Your task to perform on an android device: set an alarm Image 0: 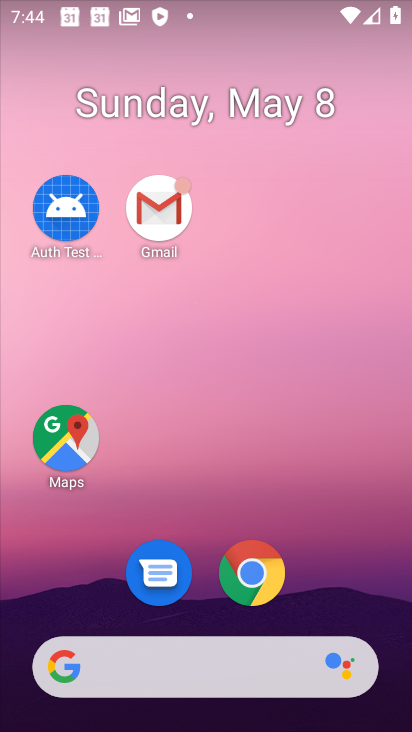
Step 0: drag from (345, 578) to (408, 165)
Your task to perform on an android device: set an alarm Image 1: 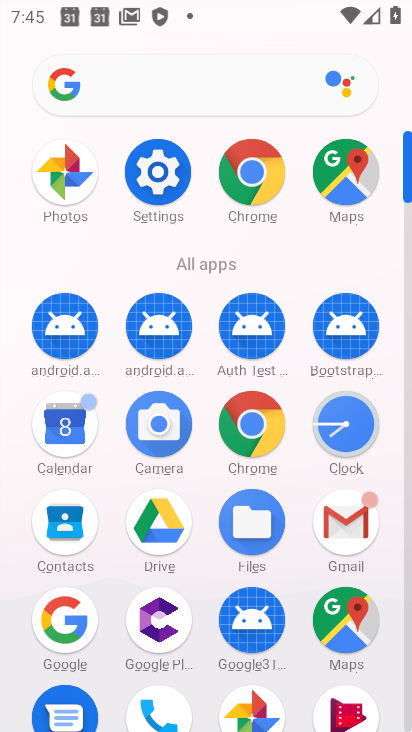
Step 1: click (338, 426)
Your task to perform on an android device: set an alarm Image 2: 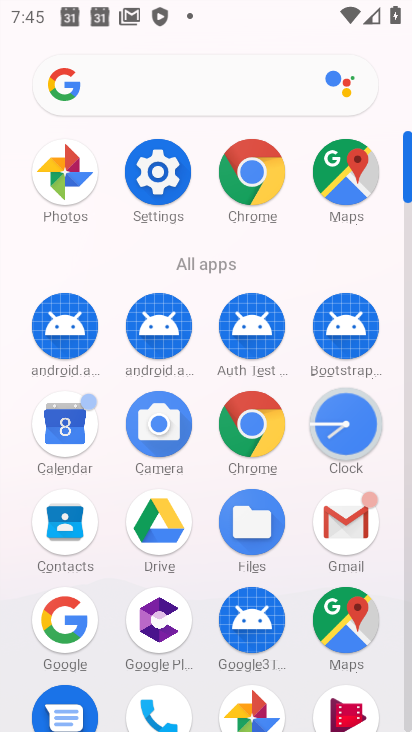
Step 2: click (338, 426)
Your task to perform on an android device: set an alarm Image 3: 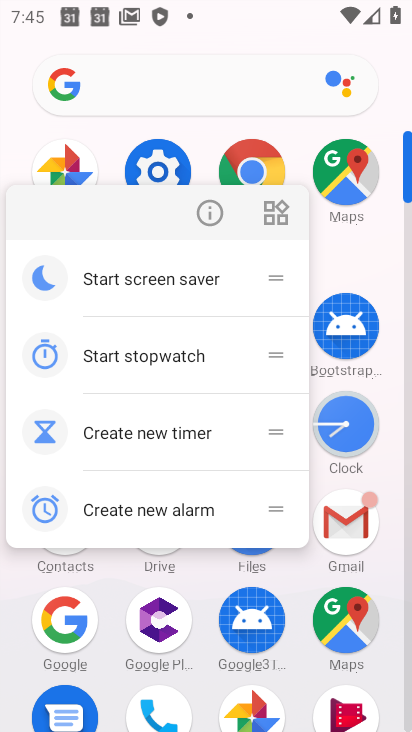
Step 3: click (340, 427)
Your task to perform on an android device: set an alarm Image 4: 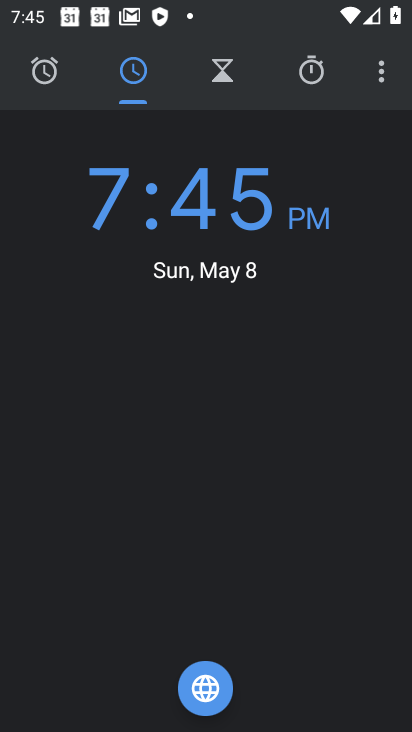
Step 4: click (47, 82)
Your task to perform on an android device: set an alarm Image 5: 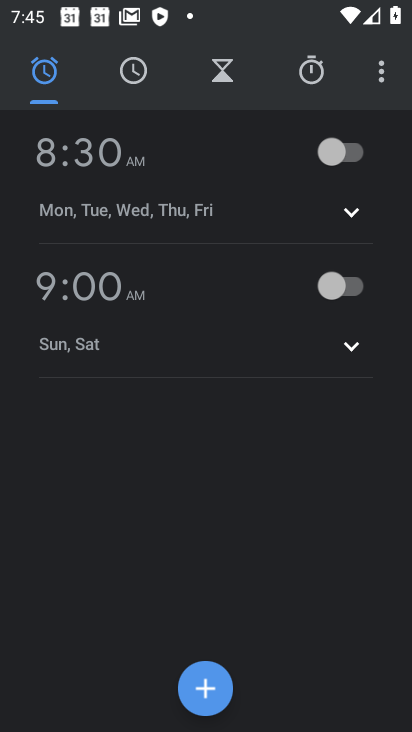
Step 5: click (333, 153)
Your task to perform on an android device: set an alarm Image 6: 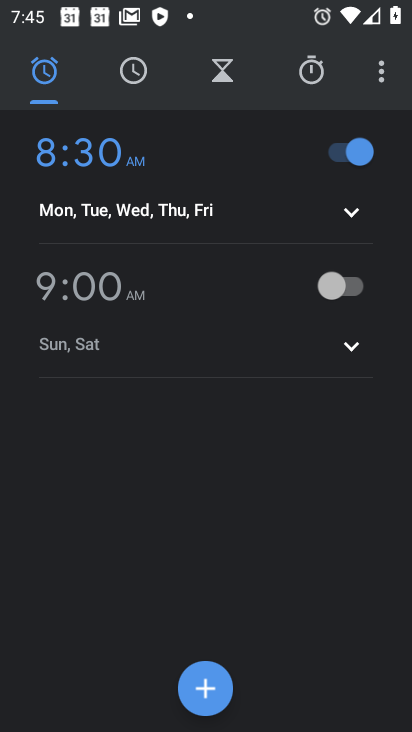
Step 6: task complete